Your task to perform on an android device: Open maps Image 0: 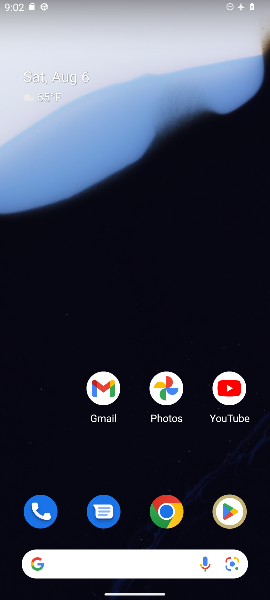
Step 0: drag from (203, 446) to (202, 67)
Your task to perform on an android device: Open maps Image 1: 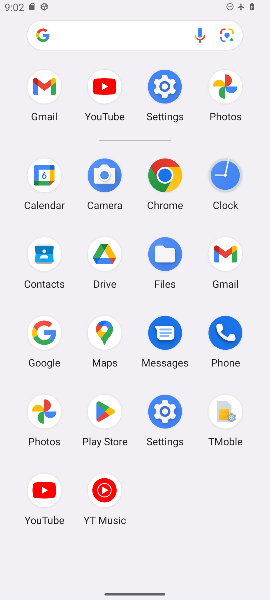
Step 1: click (113, 347)
Your task to perform on an android device: Open maps Image 2: 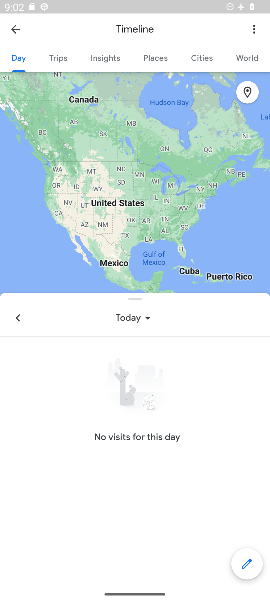
Step 2: task complete